Your task to perform on an android device: turn on translation in the chrome app Image 0: 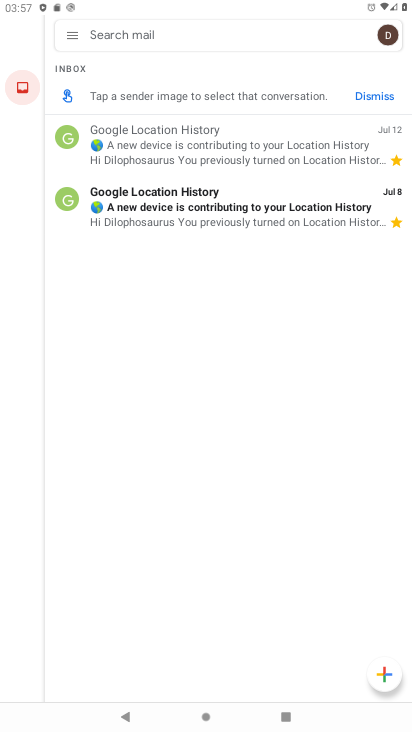
Step 0: press home button
Your task to perform on an android device: turn on translation in the chrome app Image 1: 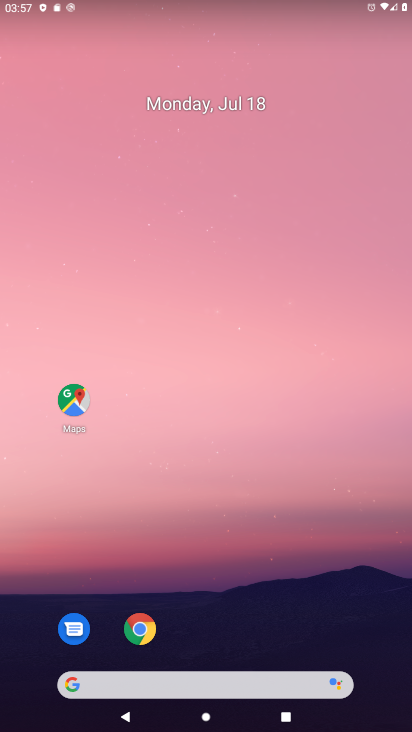
Step 1: click (138, 625)
Your task to perform on an android device: turn on translation in the chrome app Image 2: 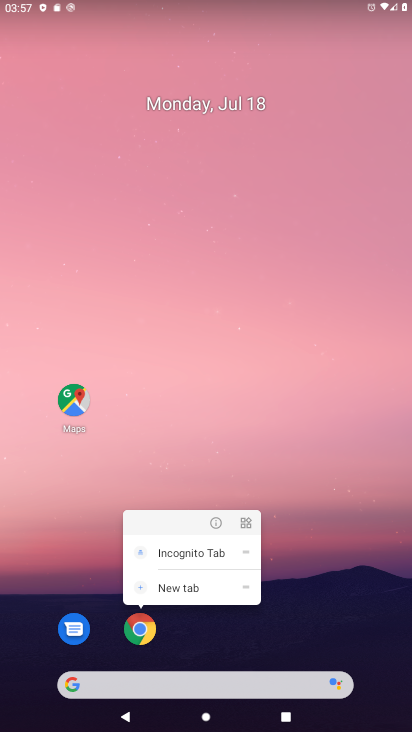
Step 2: click (138, 624)
Your task to perform on an android device: turn on translation in the chrome app Image 3: 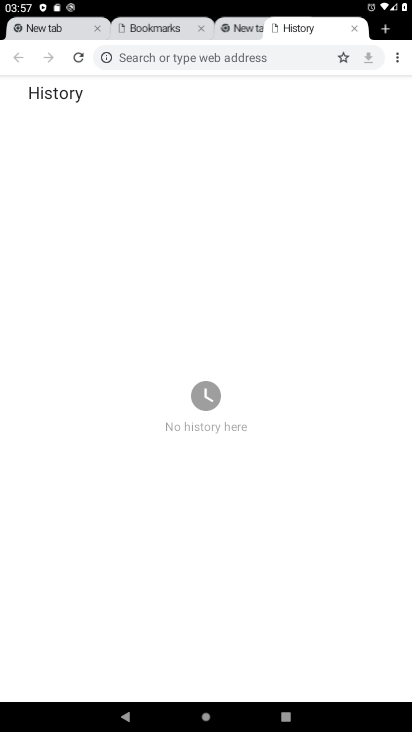
Step 3: click (399, 62)
Your task to perform on an android device: turn on translation in the chrome app Image 4: 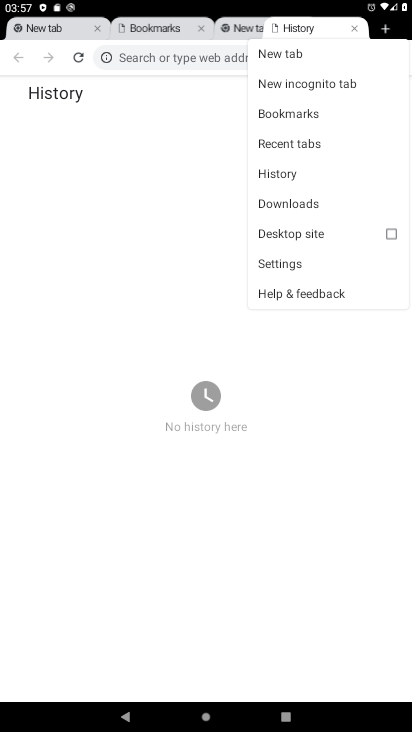
Step 4: click (273, 263)
Your task to perform on an android device: turn on translation in the chrome app Image 5: 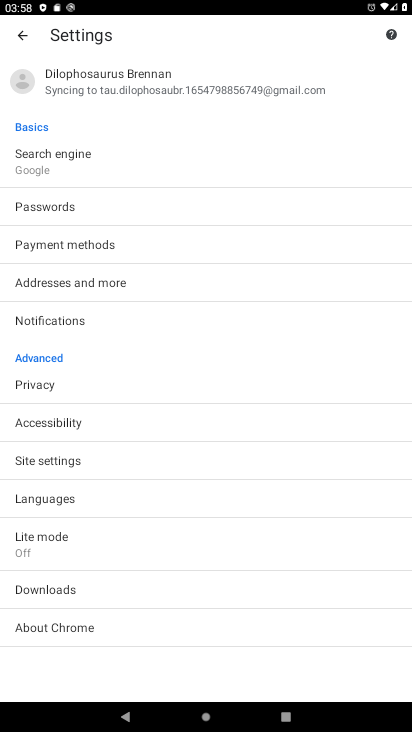
Step 5: click (62, 499)
Your task to perform on an android device: turn on translation in the chrome app Image 6: 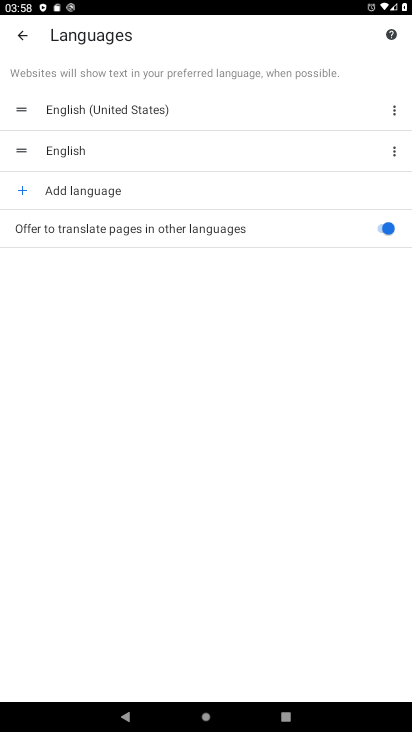
Step 6: task complete